Your task to perform on an android device: Go to Google Image 0: 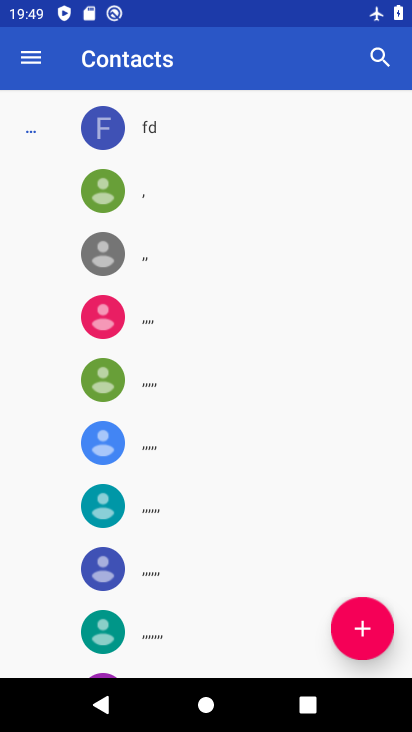
Step 0: press home button
Your task to perform on an android device: Go to Google Image 1: 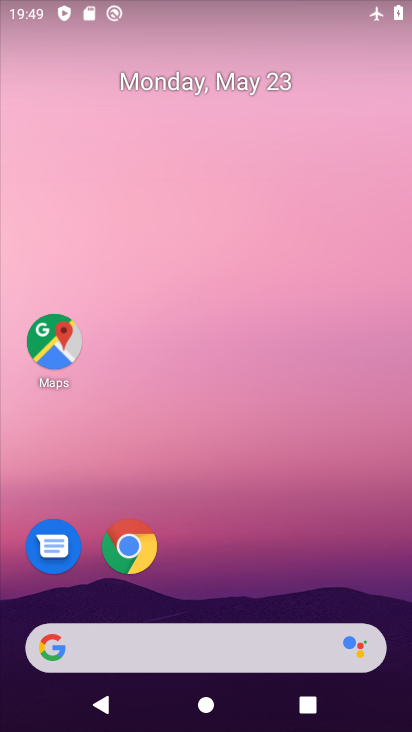
Step 1: drag from (362, 597) to (344, 254)
Your task to perform on an android device: Go to Google Image 2: 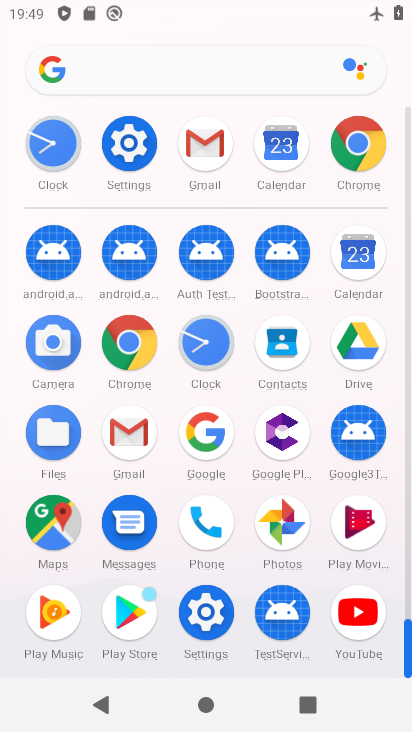
Step 2: click (218, 441)
Your task to perform on an android device: Go to Google Image 3: 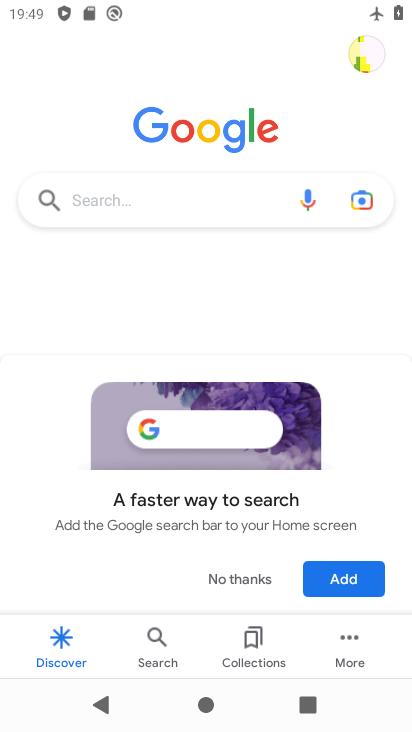
Step 3: task complete